Your task to perform on an android device: Open Reddit.com Image 0: 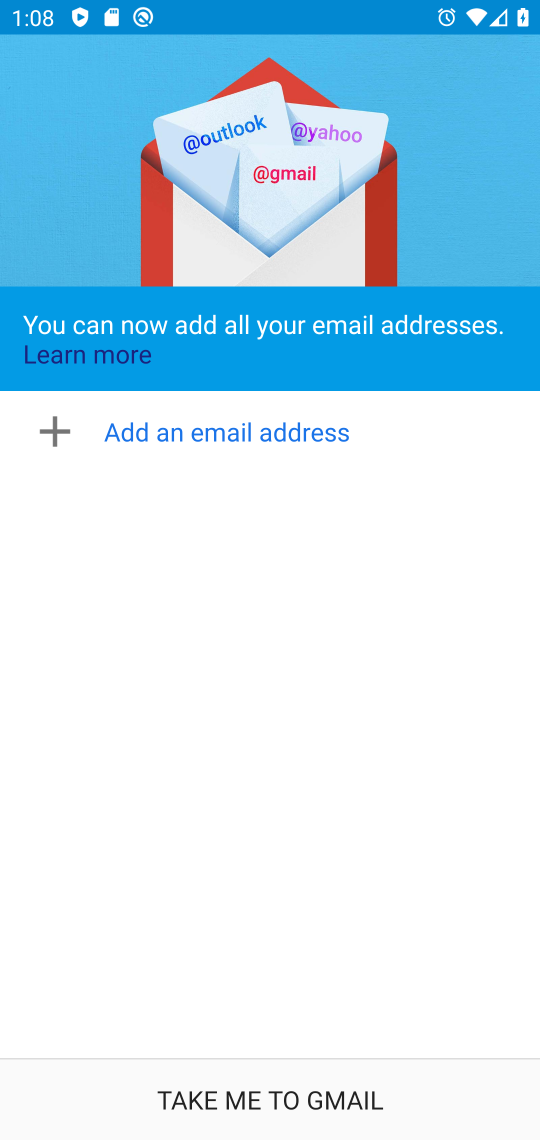
Step 0: press home button
Your task to perform on an android device: Open Reddit.com Image 1: 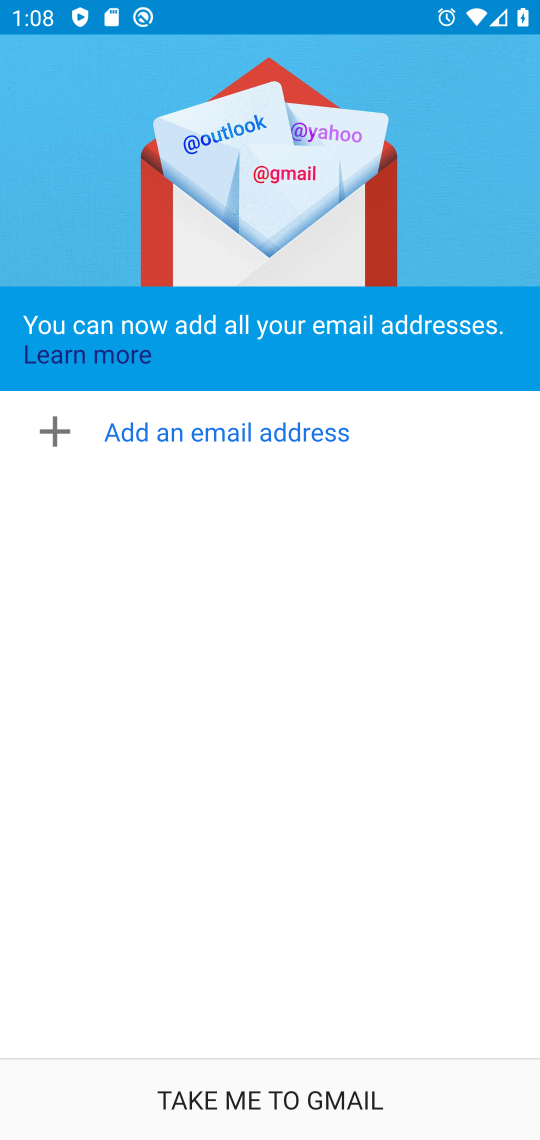
Step 1: drag from (257, 1006) to (272, 9)
Your task to perform on an android device: Open Reddit.com Image 2: 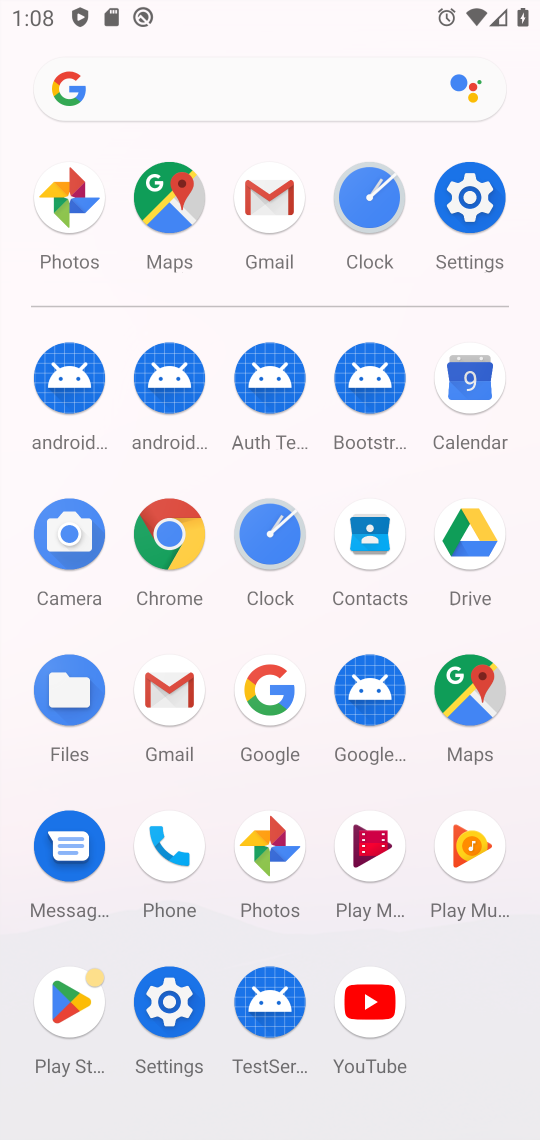
Step 2: click (209, 98)
Your task to perform on an android device: Open Reddit.com Image 3: 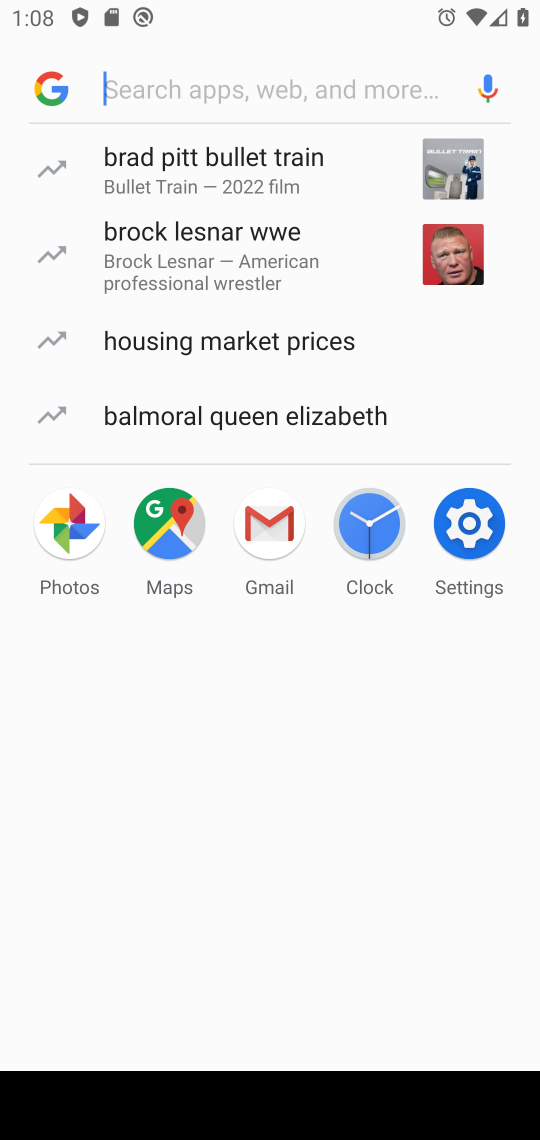
Step 3: type "Reddit.com"
Your task to perform on an android device: Open Reddit.com Image 4: 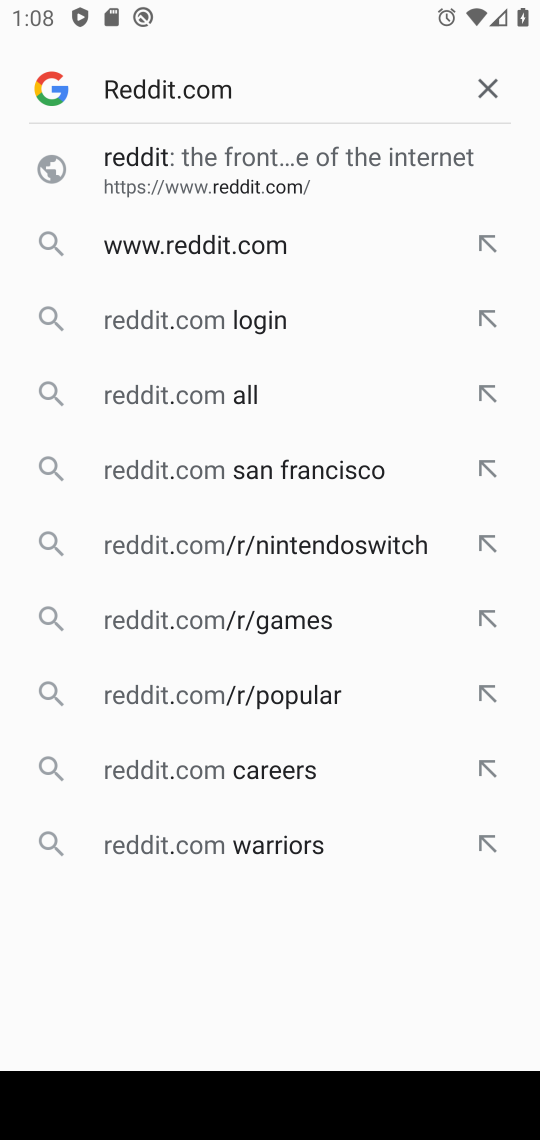
Step 4: click (213, 244)
Your task to perform on an android device: Open Reddit.com Image 5: 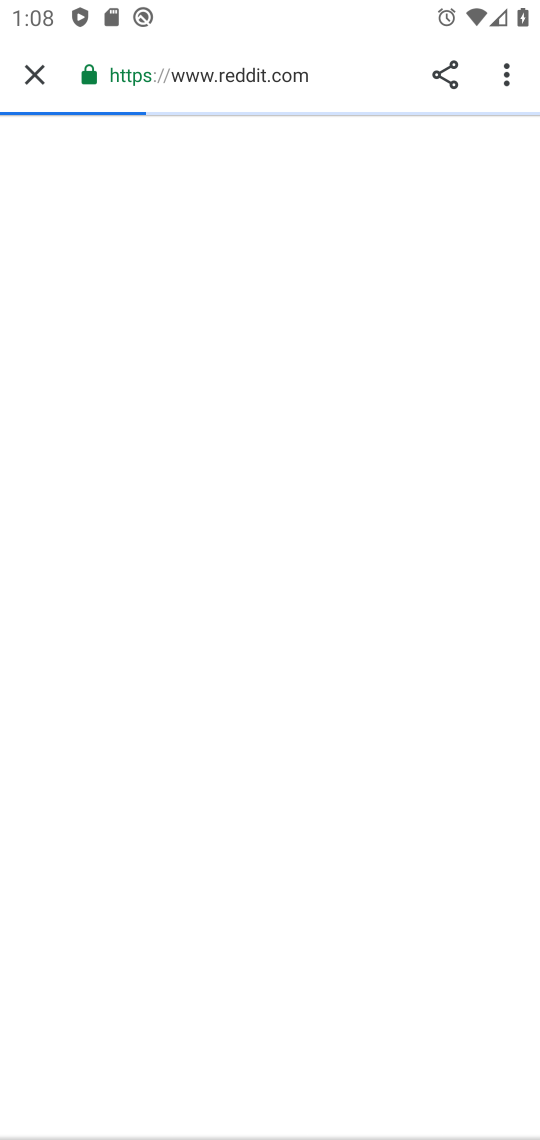
Step 5: task complete